Your task to perform on an android device: change timer sound Image 0: 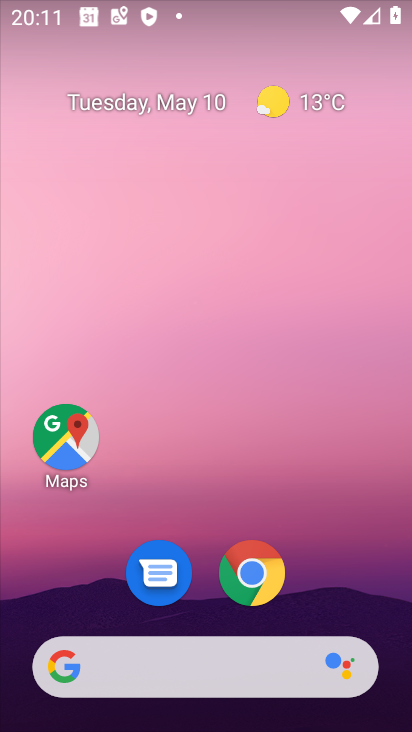
Step 0: drag from (328, 623) to (367, 10)
Your task to perform on an android device: change timer sound Image 1: 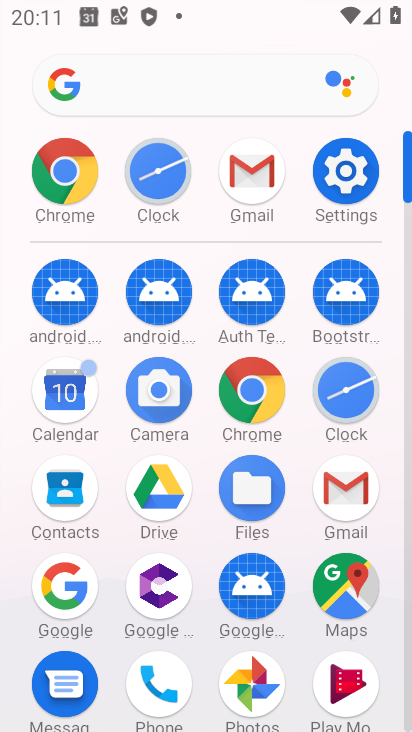
Step 1: click (149, 175)
Your task to perform on an android device: change timer sound Image 2: 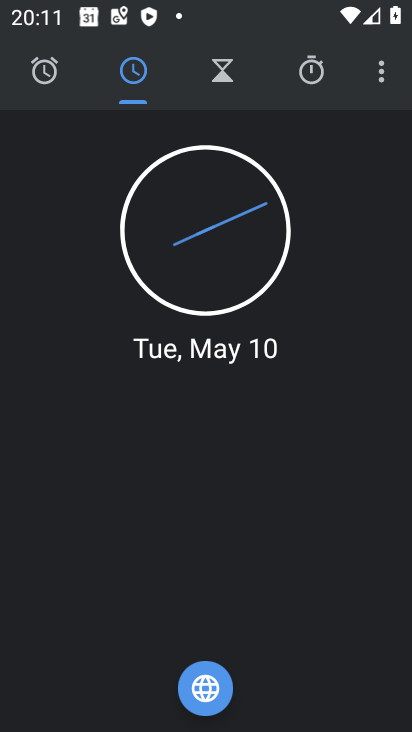
Step 2: click (383, 77)
Your task to perform on an android device: change timer sound Image 3: 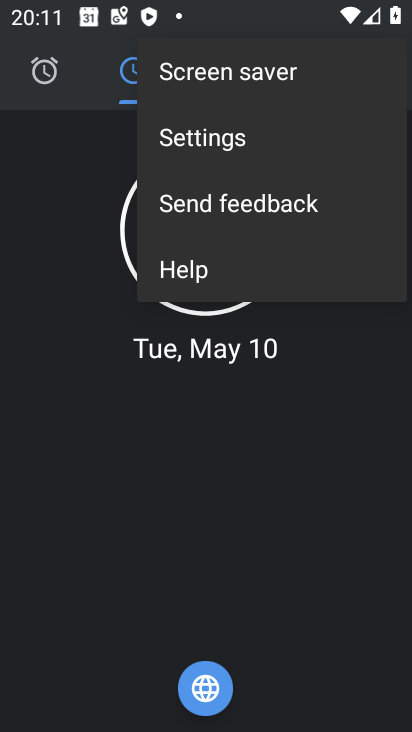
Step 3: click (232, 140)
Your task to perform on an android device: change timer sound Image 4: 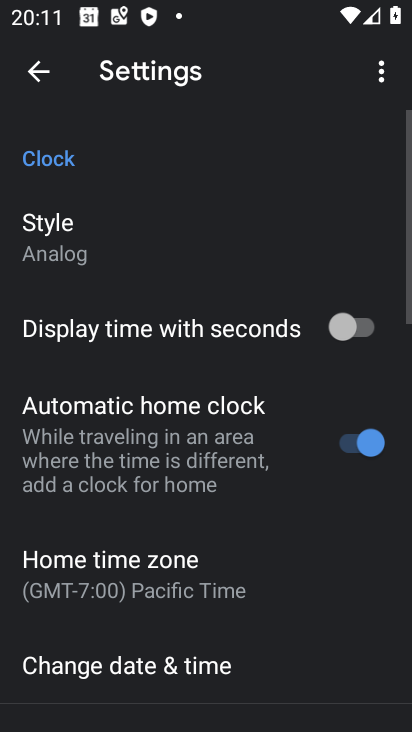
Step 4: drag from (114, 569) to (114, 217)
Your task to perform on an android device: change timer sound Image 5: 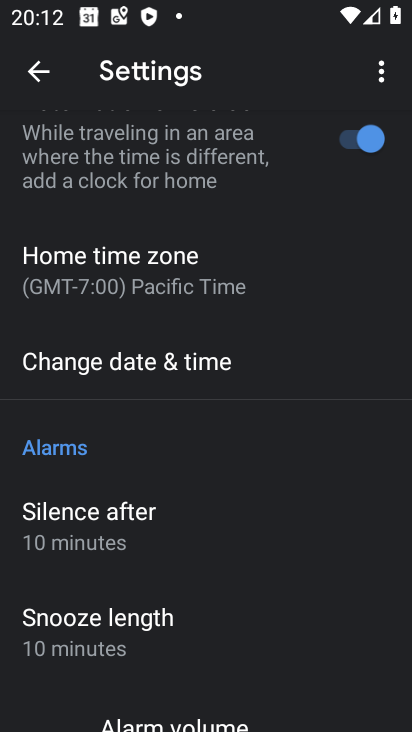
Step 5: drag from (102, 502) to (124, 135)
Your task to perform on an android device: change timer sound Image 6: 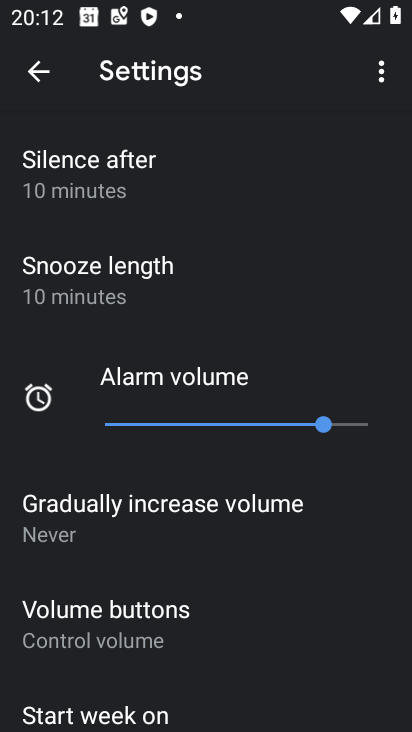
Step 6: drag from (108, 534) to (98, 129)
Your task to perform on an android device: change timer sound Image 7: 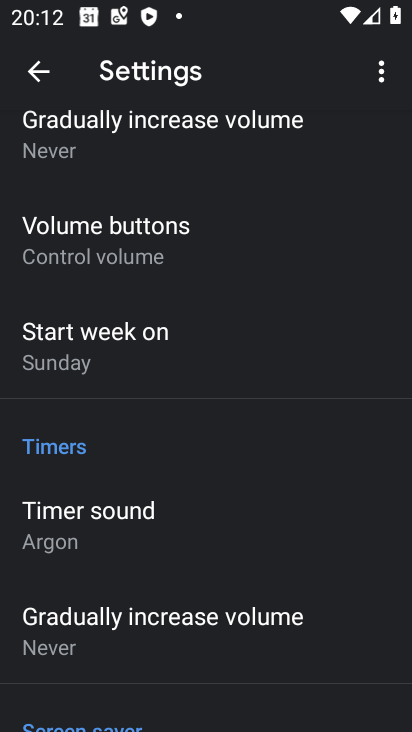
Step 7: click (53, 527)
Your task to perform on an android device: change timer sound Image 8: 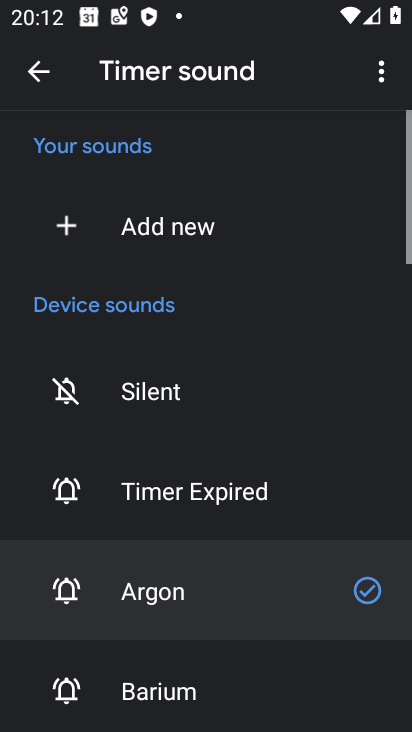
Step 8: drag from (116, 585) to (123, 383)
Your task to perform on an android device: change timer sound Image 9: 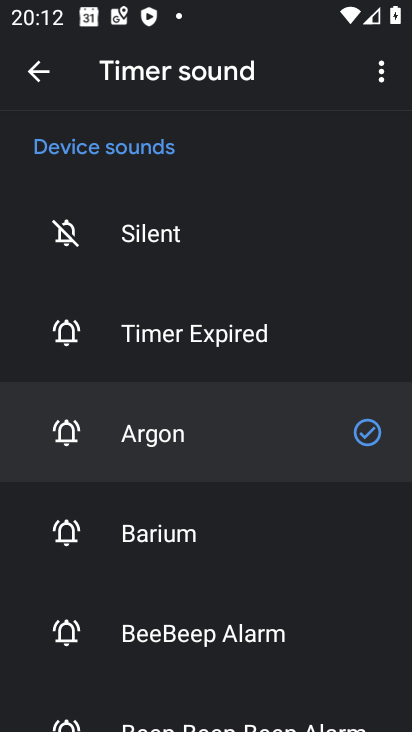
Step 9: click (105, 537)
Your task to perform on an android device: change timer sound Image 10: 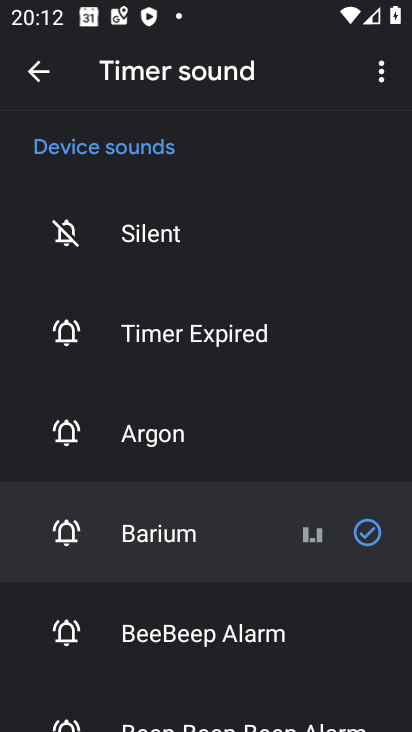
Step 10: task complete